Your task to perform on an android device: Open the map Image 0: 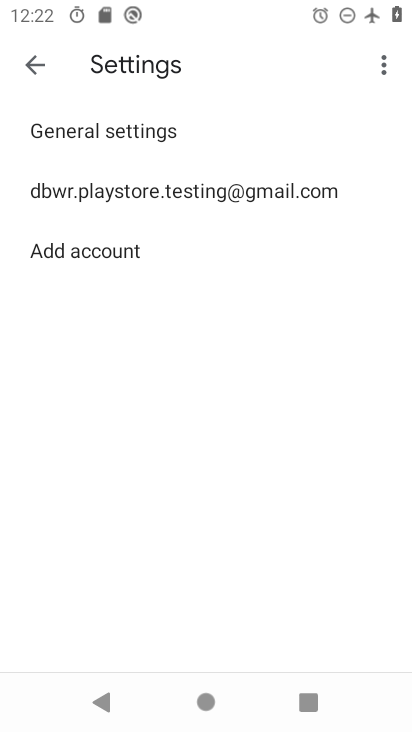
Step 0: press home button
Your task to perform on an android device: Open the map Image 1: 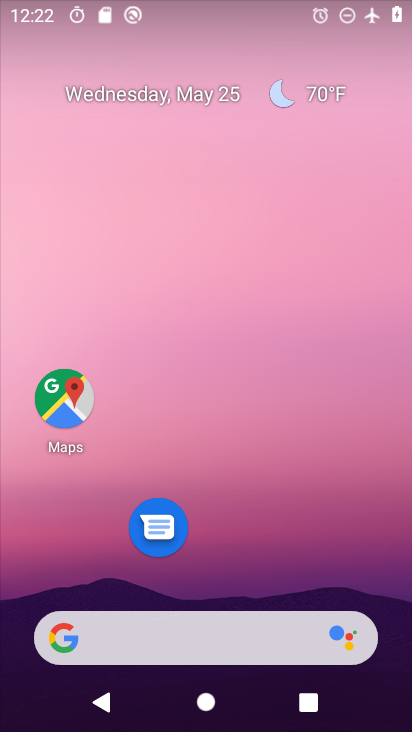
Step 1: click (59, 406)
Your task to perform on an android device: Open the map Image 2: 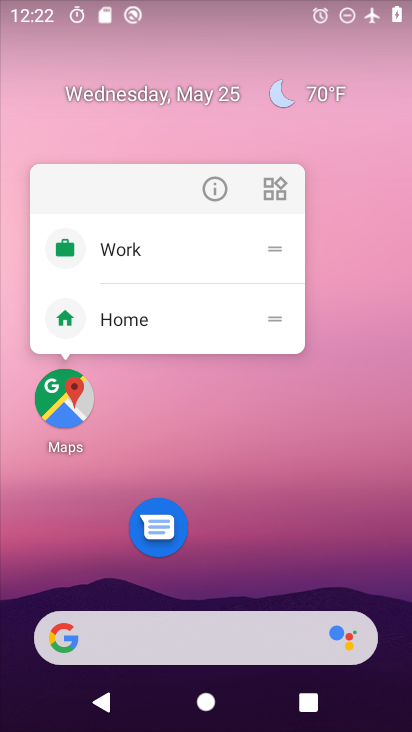
Step 2: click (59, 406)
Your task to perform on an android device: Open the map Image 3: 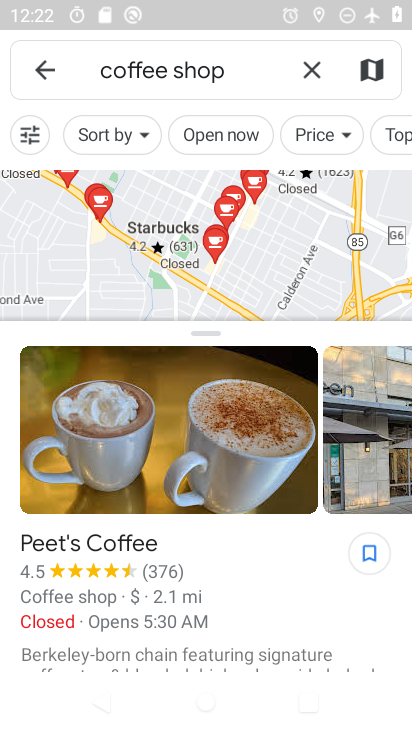
Step 3: task complete